Your task to perform on an android device: turn off airplane mode Image 0: 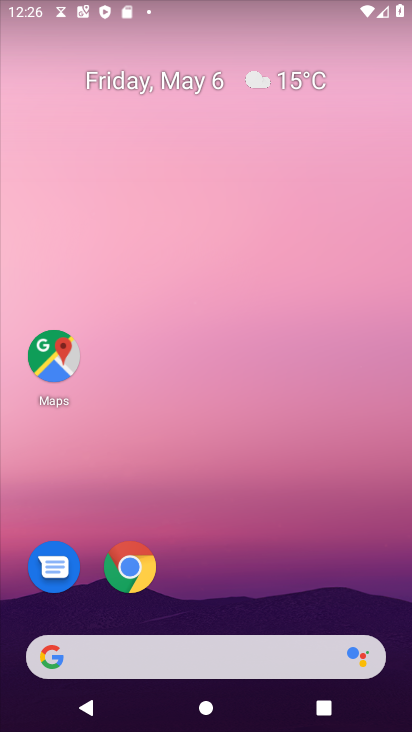
Step 0: drag from (314, 532) to (381, 125)
Your task to perform on an android device: turn off airplane mode Image 1: 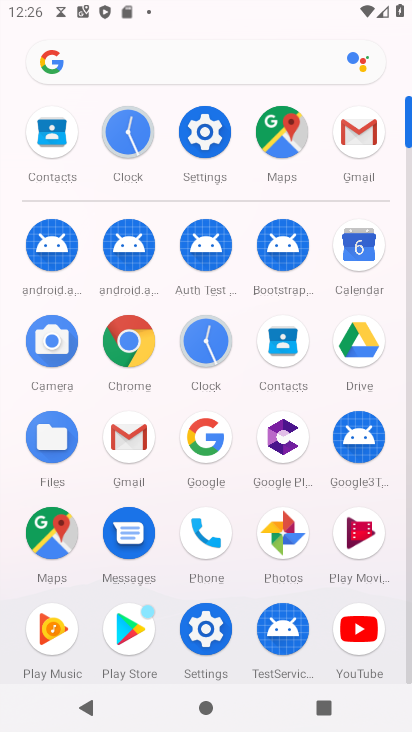
Step 1: click (207, 137)
Your task to perform on an android device: turn off airplane mode Image 2: 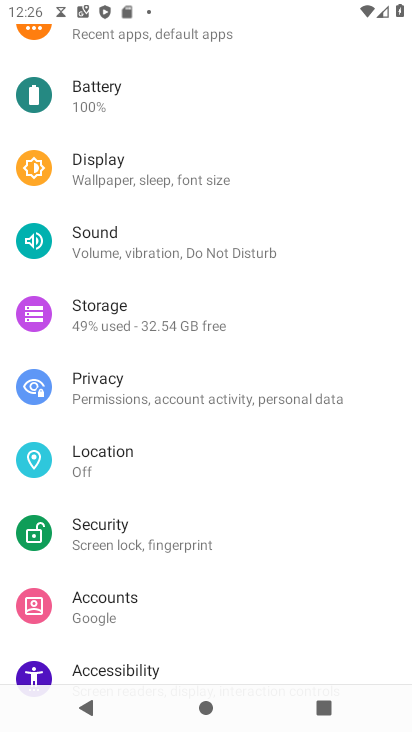
Step 2: drag from (200, 185) to (195, 467)
Your task to perform on an android device: turn off airplane mode Image 3: 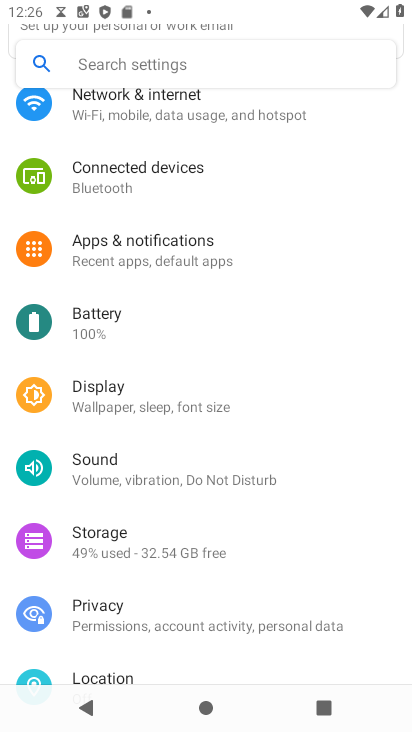
Step 3: drag from (230, 113) to (255, 454)
Your task to perform on an android device: turn off airplane mode Image 4: 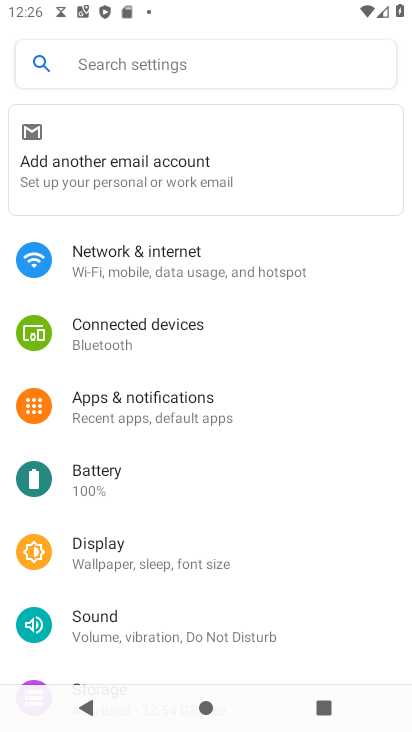
Step 4: click (198, 261)
Your task to perform on an android device: turn off airplane mode Image 5: 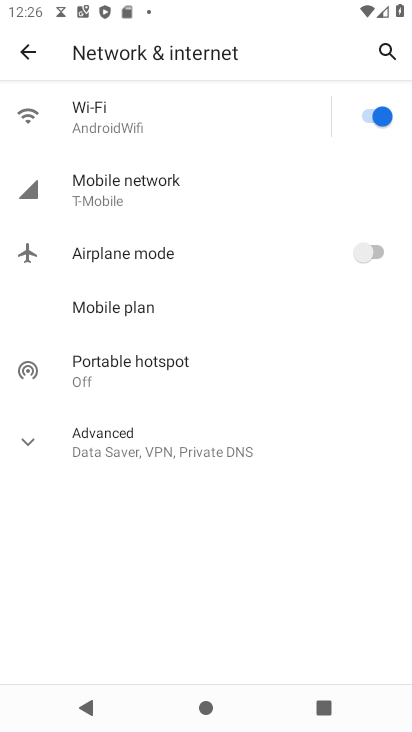
Step 5: task complete